Your task to perform on an android device: change notification settings in the gmail app Image 0: 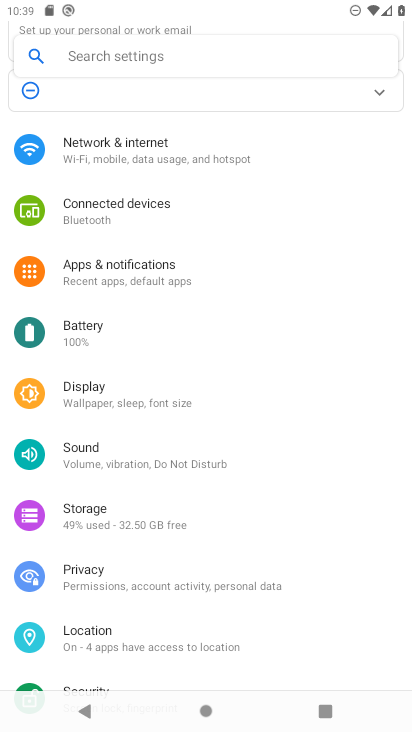
Step 0: press home button
Your task to perform on an android device: change notification settings in the gmail app Image 1: 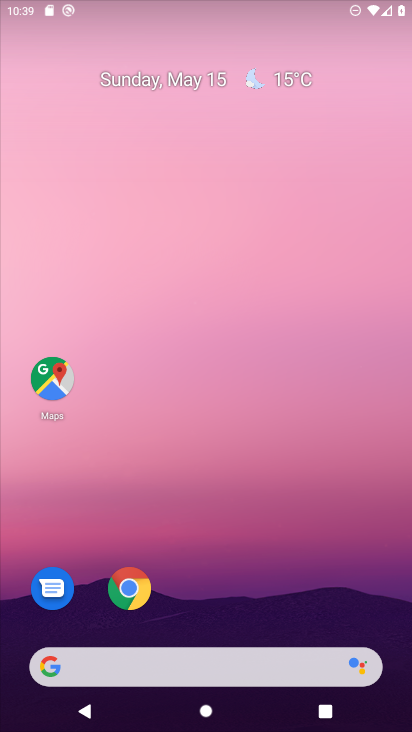
Step 1: drag from (166, 622) to (311, 9)
Your task to perform on an android device: change notification settings in the gmail app Image 2: 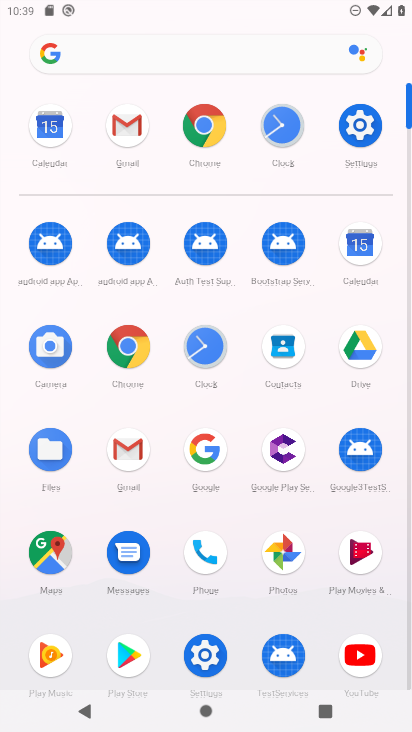
Step 2: click (133, 466)
Your task to perform on an android device: change notification settings in the gmail app Image 3: 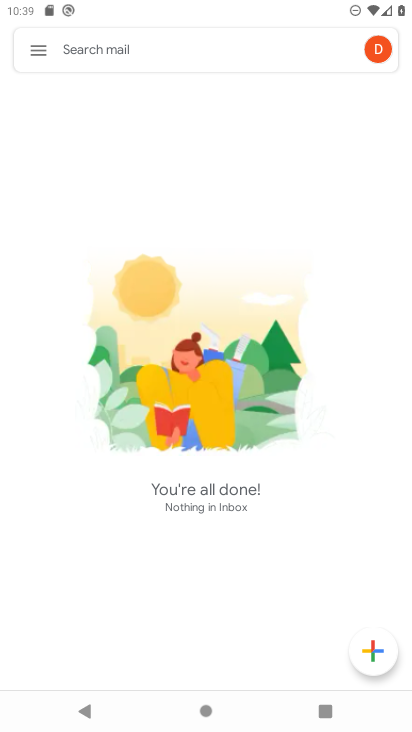
Step 3: click (32, 55)
Your task to perform on an android device: change notification settings in the gmail app Image 4: 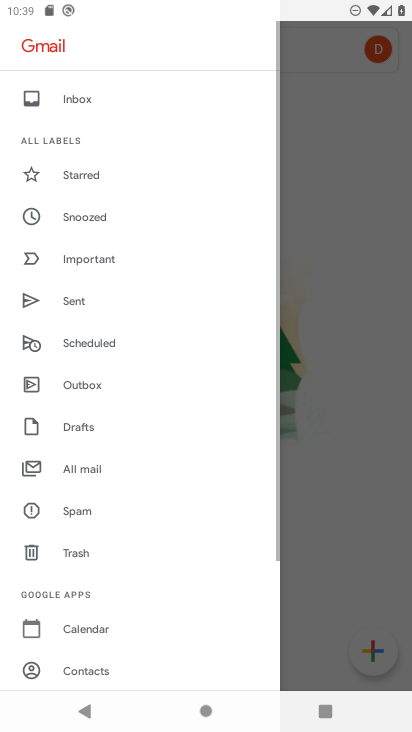
Step 4: drag from (83, 635) to (110, 382)
Your task to perform on an android device: change notification settings in the gmail app Image 5: 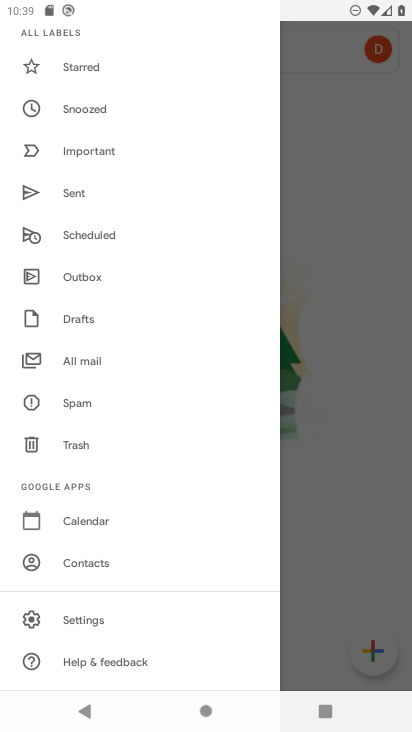
Step 5: click (92, 619)
Your task to perform on an android device: change notification settings in the gmail app Image 6: 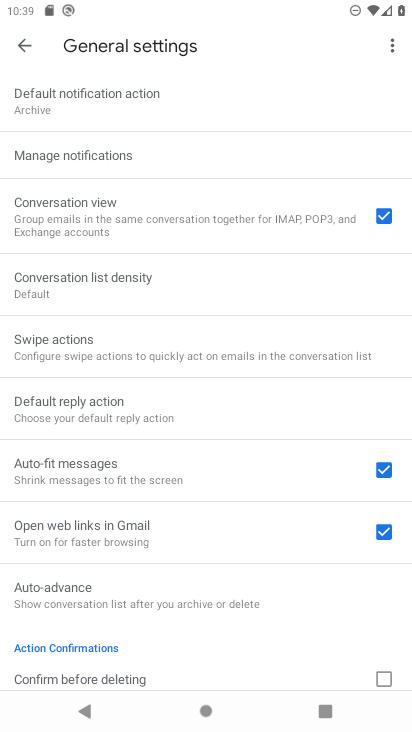
Step 6: click (77, 148)
Your task to perform on an android device: change notification settings in the gmail app Image 7: 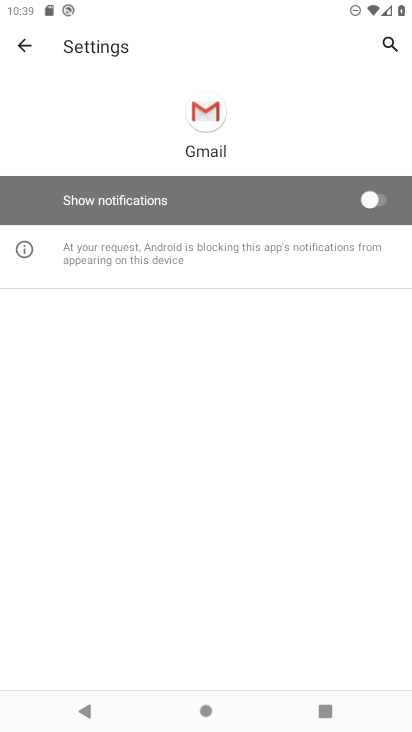
Step 7: click (385, 205)
Your task to perform on an android device: change notification settings in the gmail app Image 8: 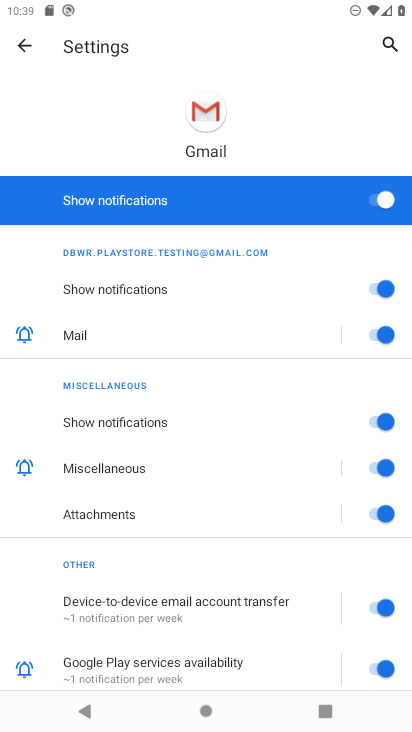
Step 8: task complete